Your task to perform on an android device: turn off sleep mode Image 0: 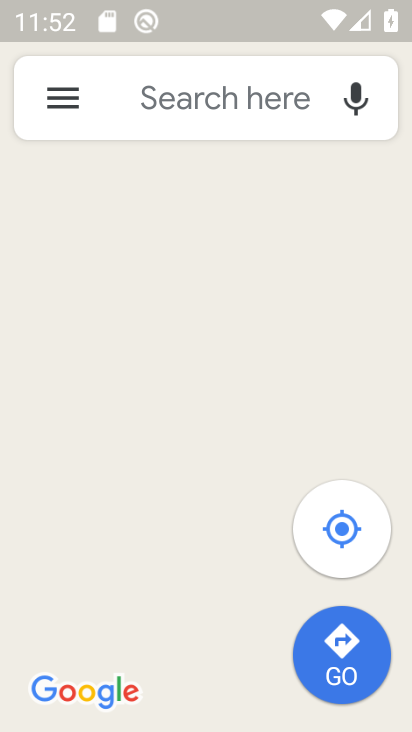
Step 0: press home button
Your task to perform on an android device: turn off sleep mode Image 1: 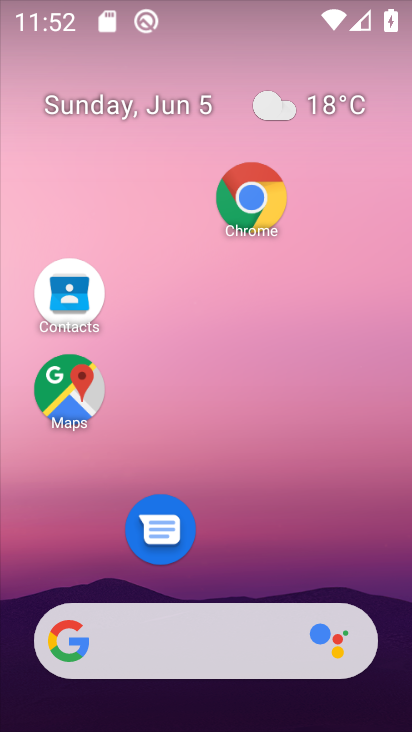
Step 1: drag from (273, 536) to (236, 0)
Your task to perform on an android device: turn off sleep mode Image 2: 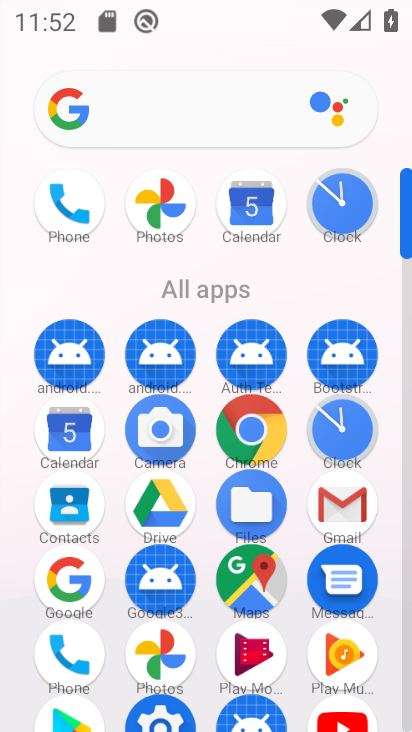
Step 2: drag from (293, 488) to (240, 143)
Your task to perform on an android device: turn off sleep mode Image 3: 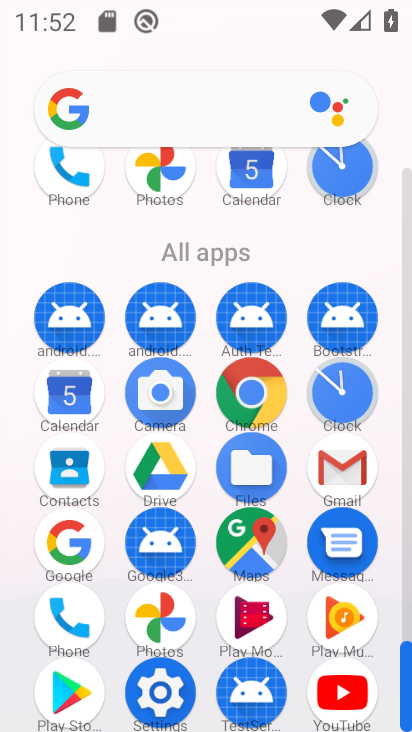
Step 3: click (148, 692)
Your task to perform on an android device: turn off sleep mode Image 4: 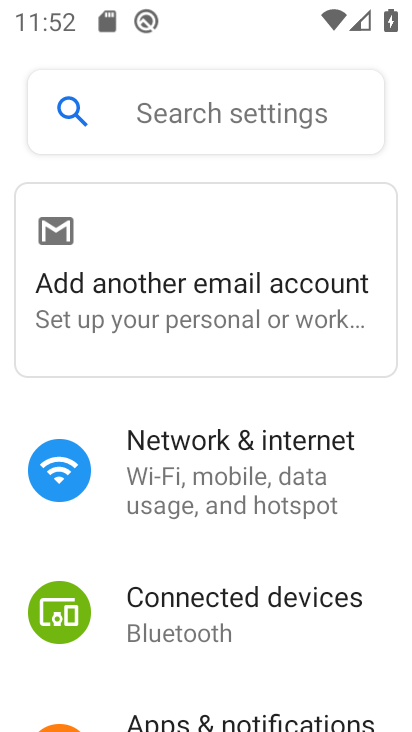
Step 4: task complete